Your task to perform on an android device: read, delete, or share a saved page in the chrome app Image 0: 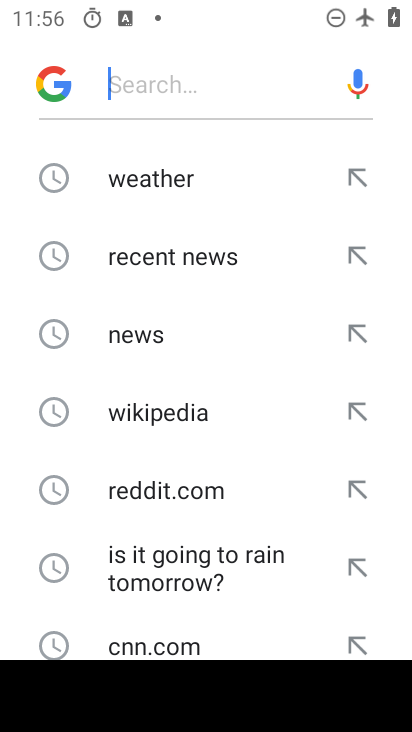
Step 0: press home button
Your task to perform on an android device: read, delete, or share a saved page in the chrome app Image 1: 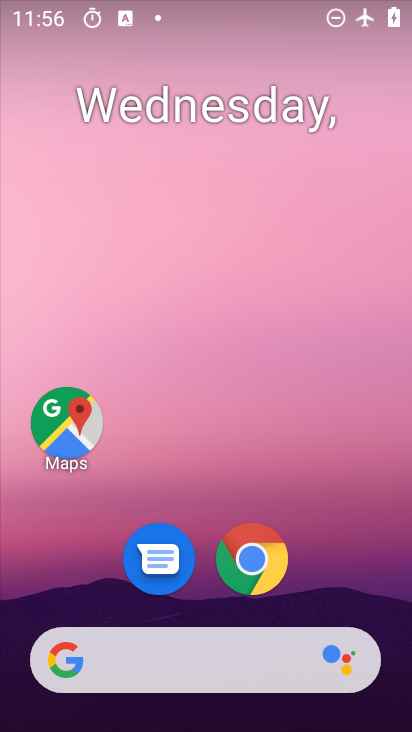
Step 1: drag from (230, 618) to (228, 121)
Your task to perform on an android device: read, delete, or share a saved page in the chrome app Image 2: 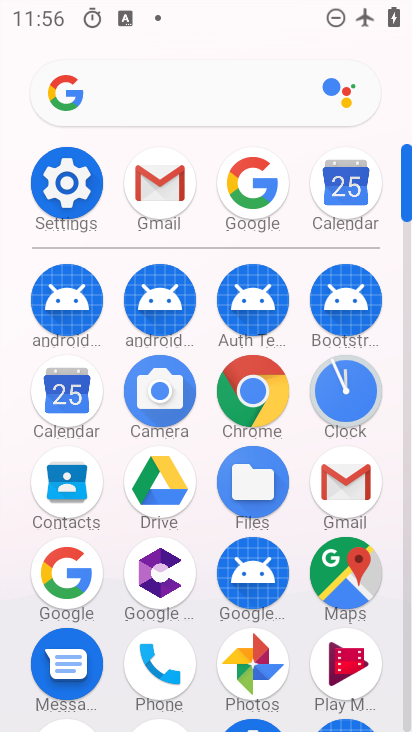
Step 2: click (262, 393)
Your task to perform on an android device: read, delete, or share a saved page in the chrome app Image 3: 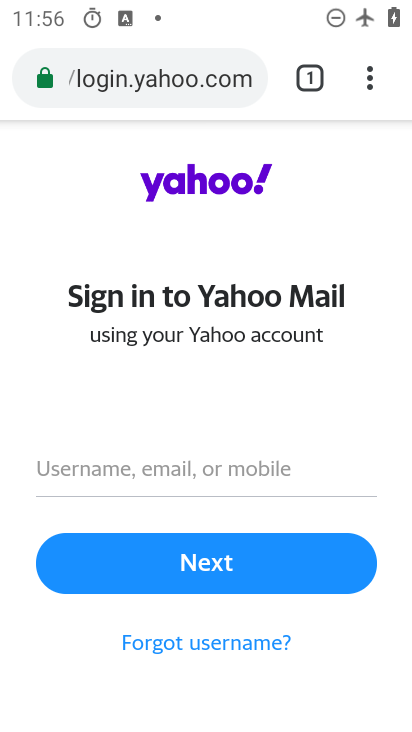
Step 3: click (369, 83)
Your task to perform on an android device: read, delete, or share a saved page in the chrome app Image 4: 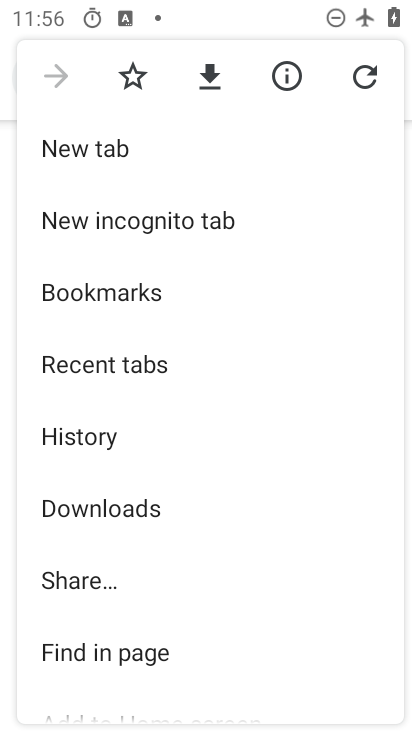
Step 4: click (98, 507)
Your task to perform on an android device: read, delete, or share a saved page in the chrome app Image 5: 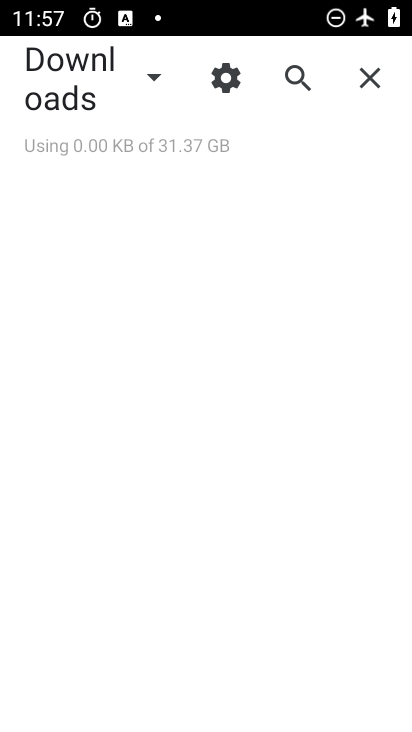
Step 5: click (147, 70)
Your task to perform on an android device: read, delete, or share a saved page in the chrome app Image 6: 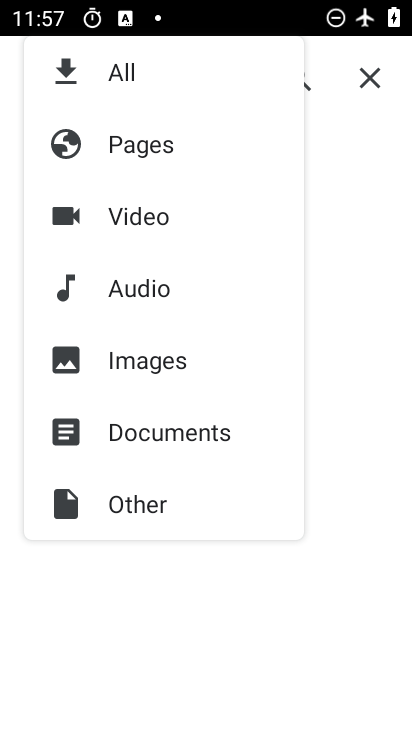
Step 6: click (144, 148)
Your task to perform on an android device: read, delete, or share a saved page in the chrome app Image 7: 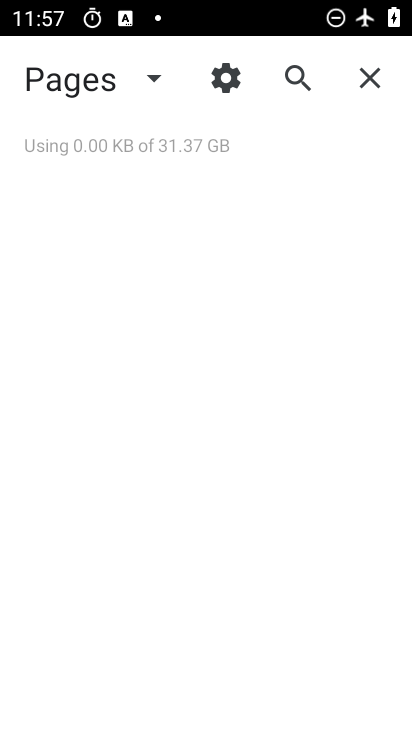
Step 7: task complete